Your task to perform on an android device: see creations saved in the google photos Image 0: 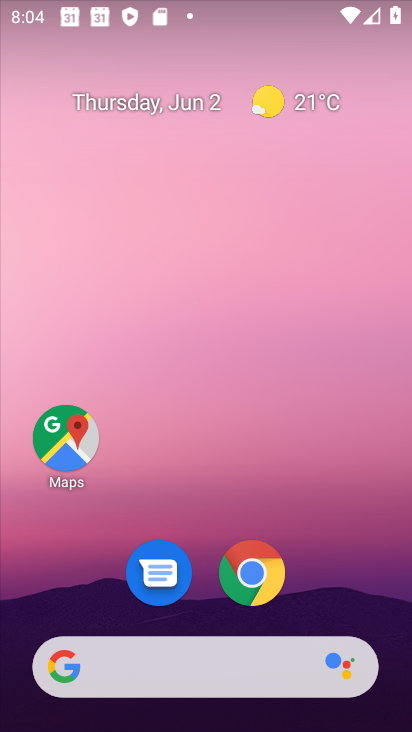
Step 0: drag from (346, 558) to (315, 58)
Your task to perform on an android device: see creations saved in the google photos Image 1: 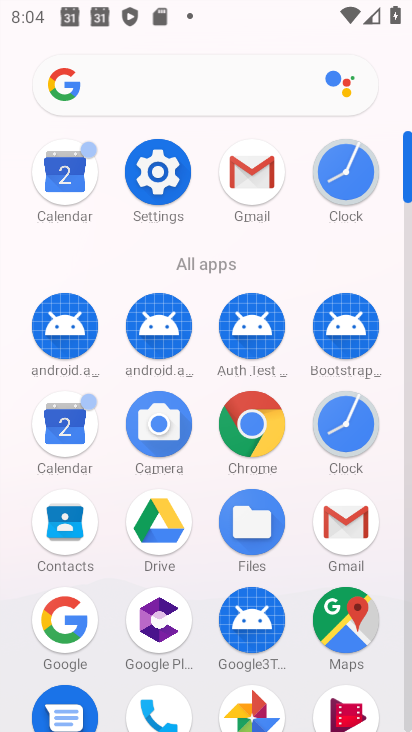
Step 1: click (257, 712)
Your task to perform on an android device: see creations saved in the google photos Image 2: 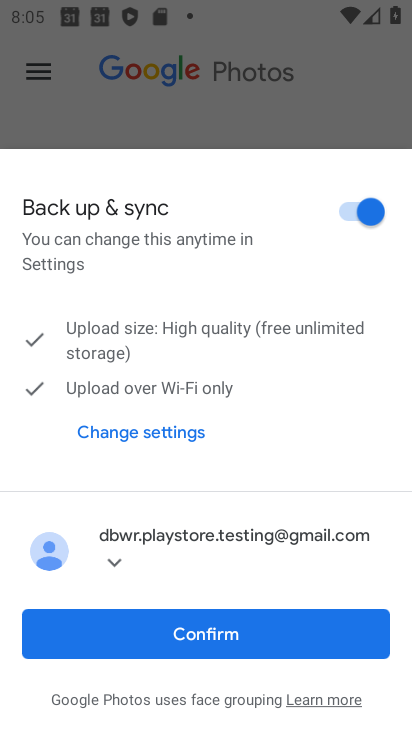
Step 2: click (199, 645)
Your task to perform on an android device: see creations saved in the google photos Image 3: 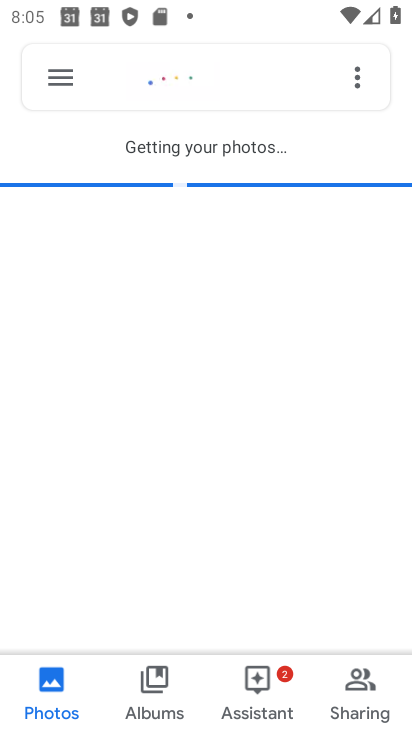
Step 3: click (166, 82)
Your task to perform on an android device: see creations saved in the google photos Image 4: 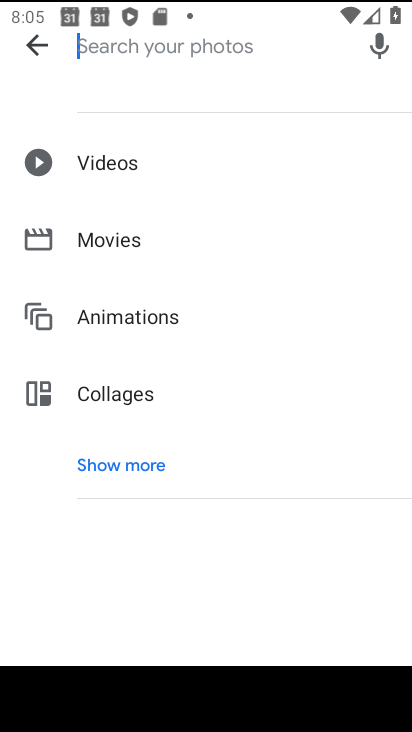
Step 4: click (139, 465)
Your task to perform on an android device: see creations saved in the google photos Image 5: 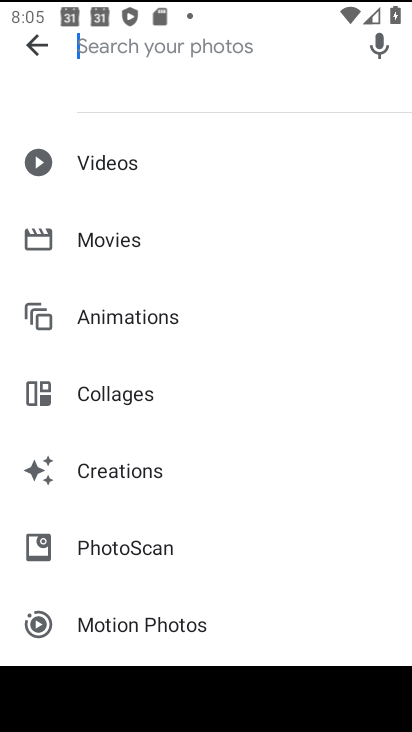
Step 5: click (134, 473)
Your task to perform on an android device: see creations saved in the google photos Image 6: 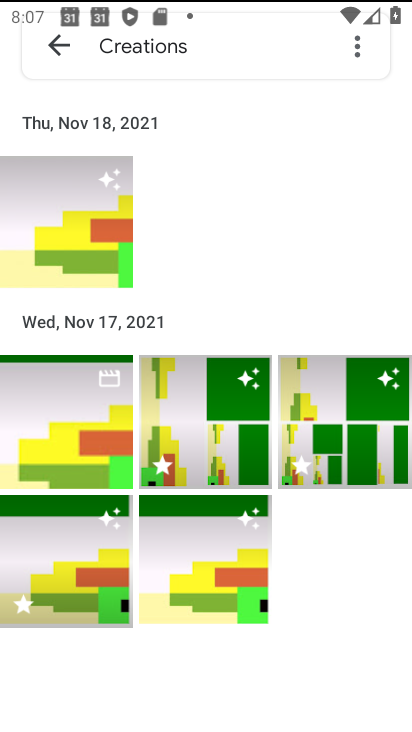
Step 6: task complete